Your task to perform on an android device: Search for sushi restaurants on Maps Image 0: 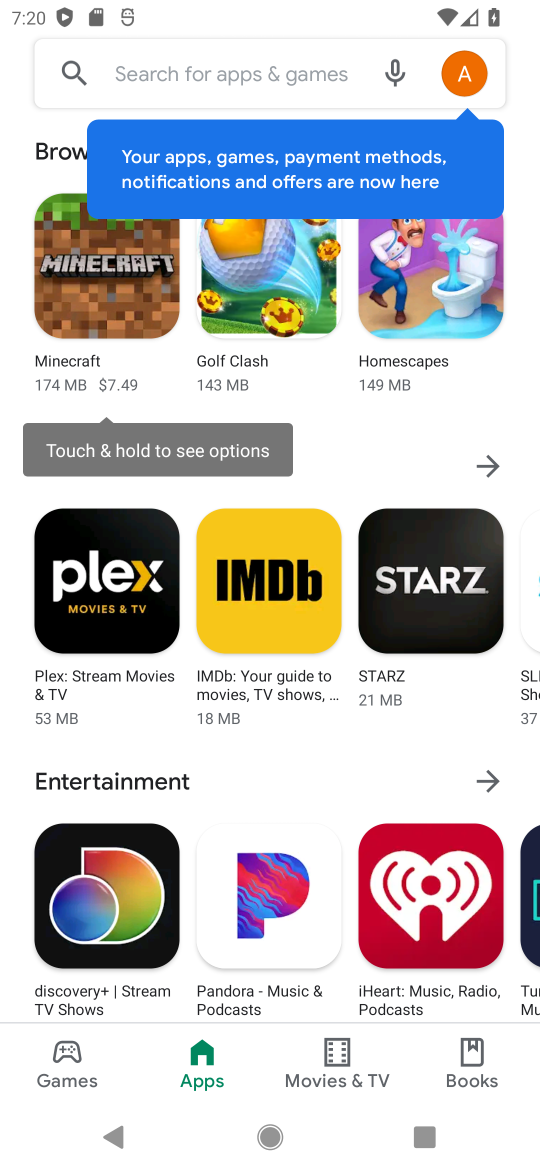
Step 0: press home button
Your task to perform on an android device: Search for sushi restaurants on Maps Image 1: 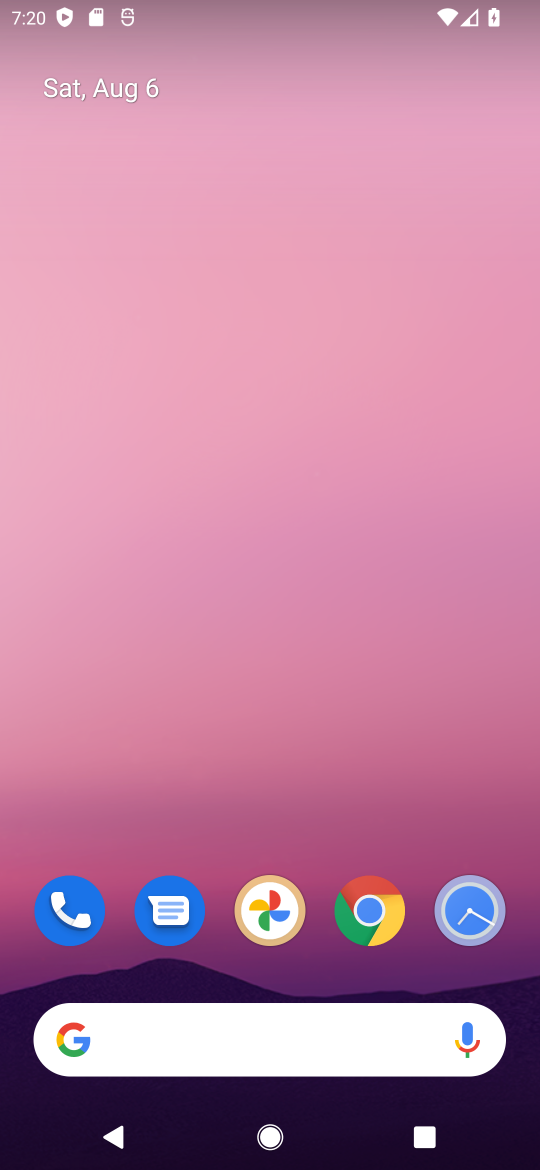
Step 1: drag from (503, 989) to (358, 131)
Your task to perform on an android device: Search for sushi restaurants on Maps Image 2: 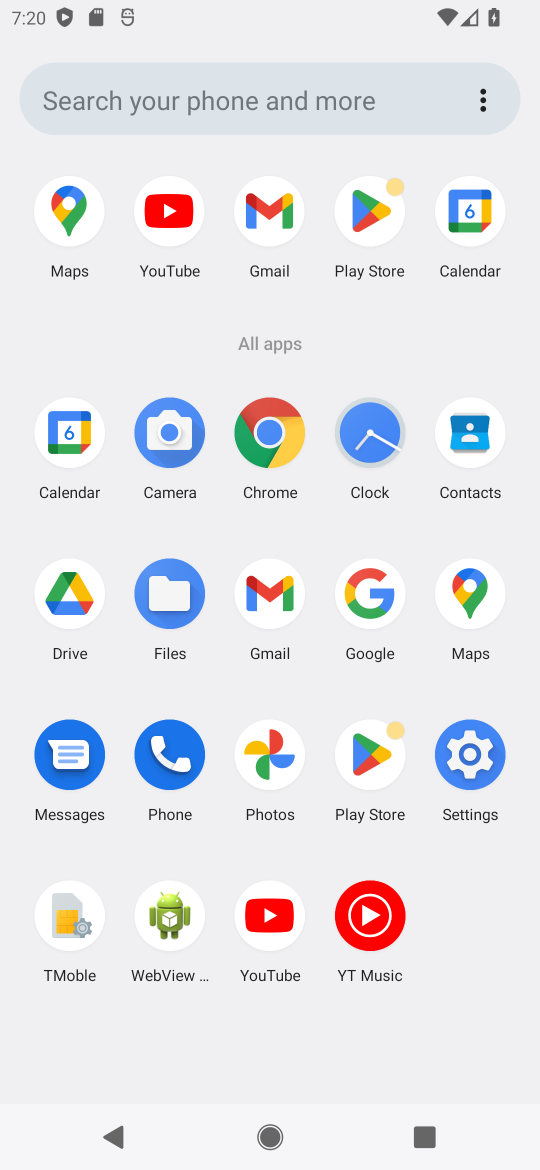
Step 2: click (476, 560)
Your task to perform on an android device: Search for sushi restaurants on Maps Image 3: 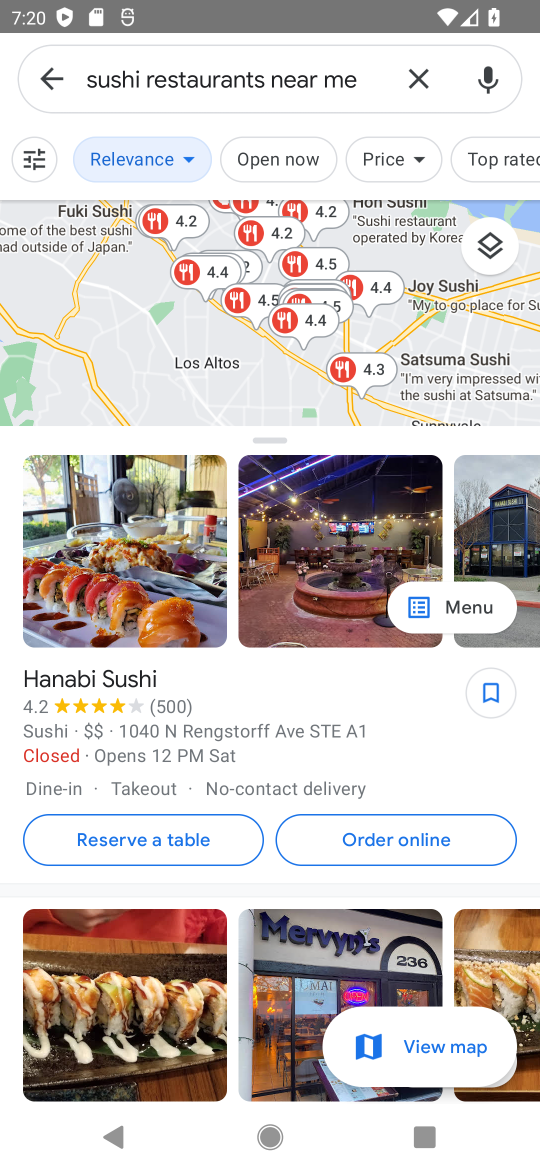
Step 3: click (409, 75)
Your task to perform on an android device: Search for sushi restaurants on Maps Image 4: 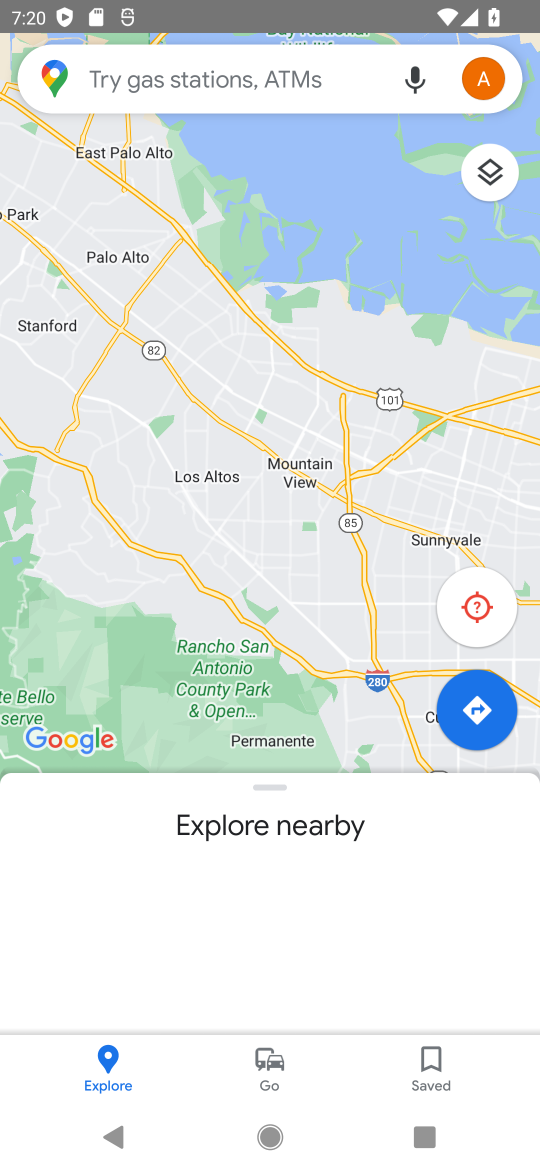
Step 4: click (235, 79)
Your task to perform on an android device: Search for sushi restaurants on Maps Image 5: 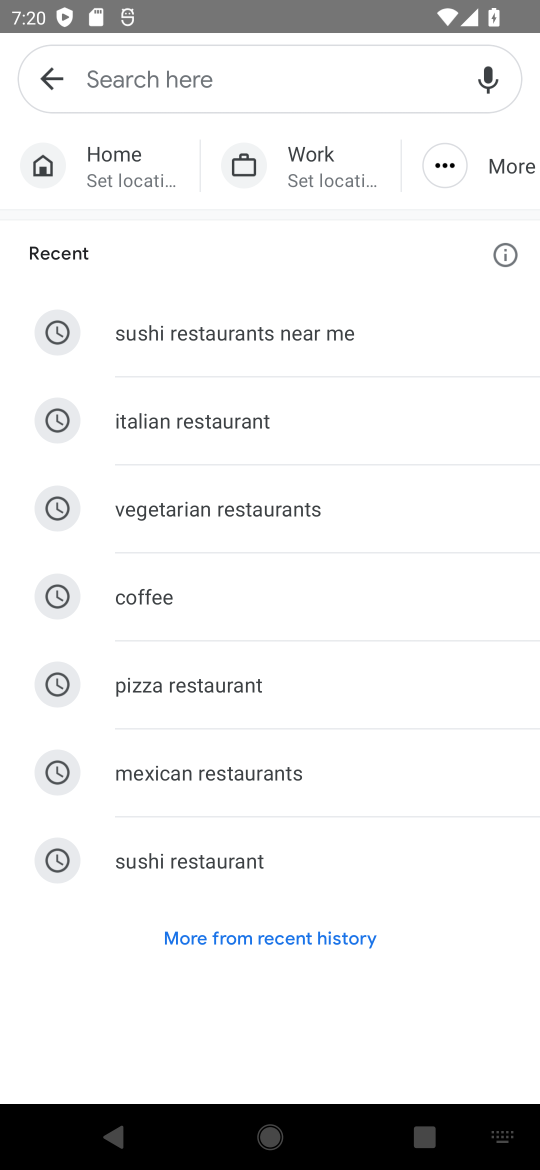
Step 5: type "sushi restaurants"
Your task to perform on an android device: Search for sushi restaurants on Maps Image 6: 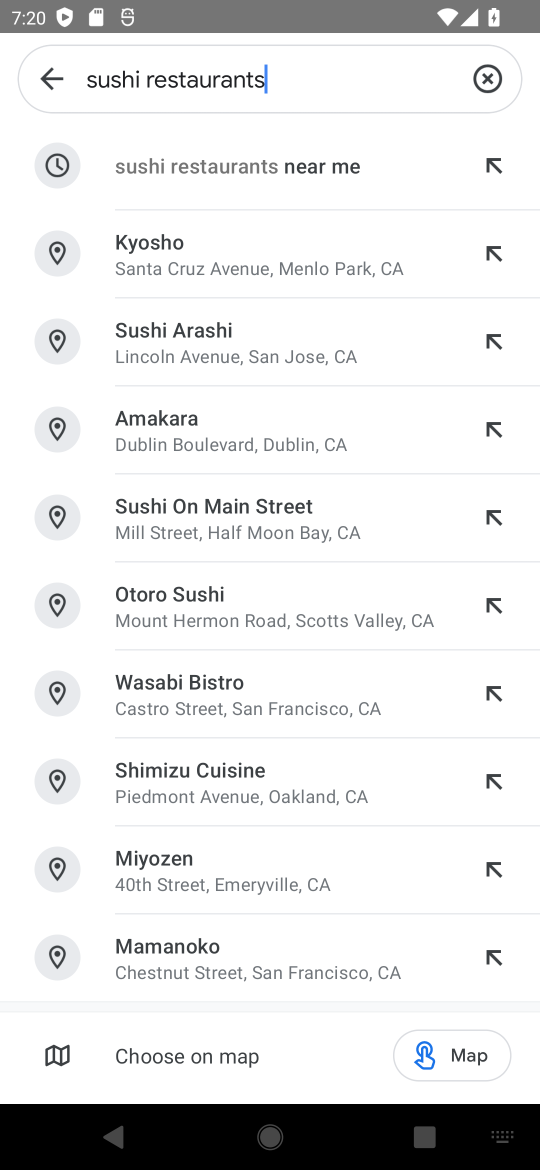
Step 6: click (243, 164)
Your task to perform on an android device: Search for sushi restaurants on Maps Image 7: 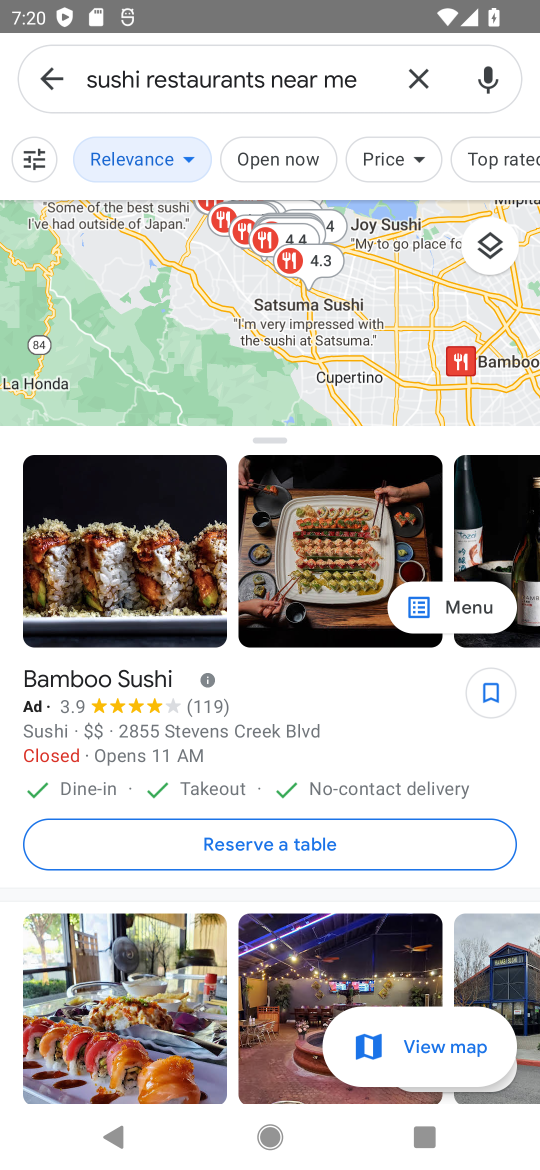
Step 7: task complete